Your task to perform on an android device: check google app version Image 0: 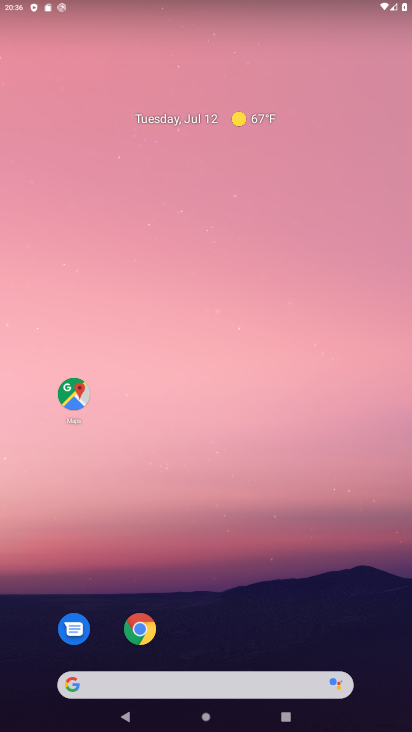
Step 0: drag from (253, 708) to (286, 10)
Your task to perform on an android device: check google app version Image 1: 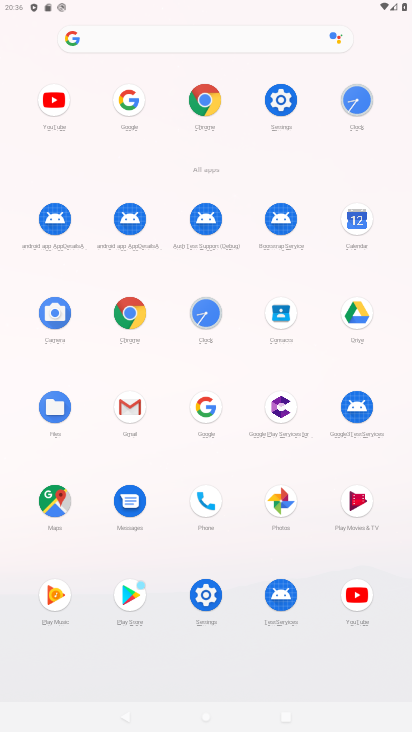
Step 1: click (211, 415)
Your task to perform on an android device: check google app version Image 2: 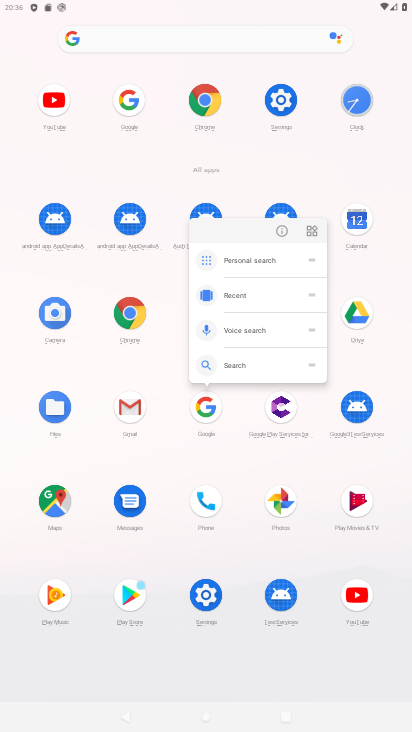
Step 2: click (283, 230)
Your task to perform on an android device: check google app version Image 3: 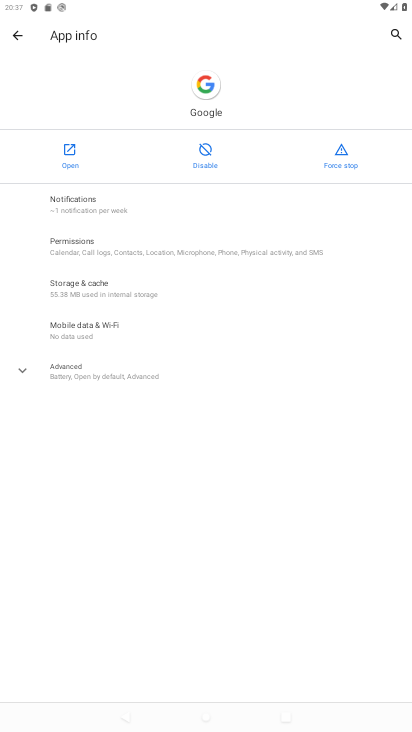
Step 3: click (114, 369)
Your task to perform on an android device: check google app version Image 4: 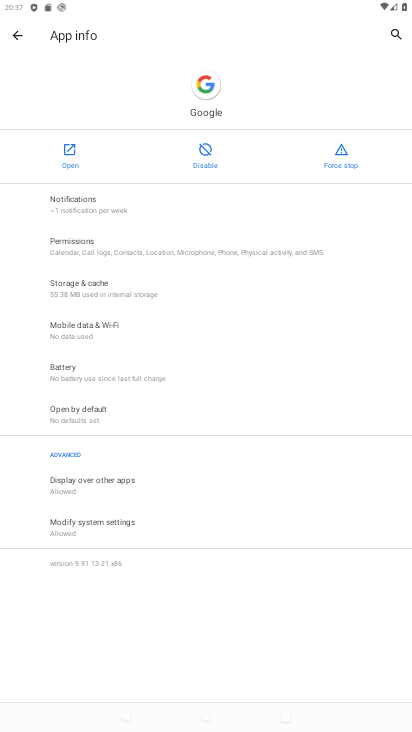
Step 4: task complete